Your task to perform on an android device: open chrome and create a bookmark for the current page Image 0: 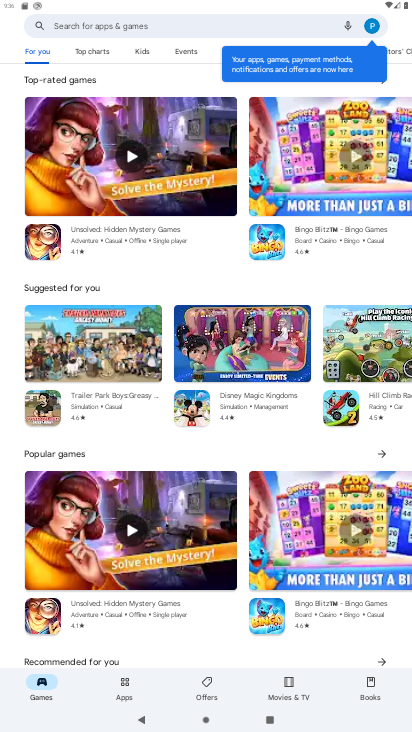
Step 0: press home button
Your task to perform on an android device: open chrome and create a bookmark for the current page Image 1: 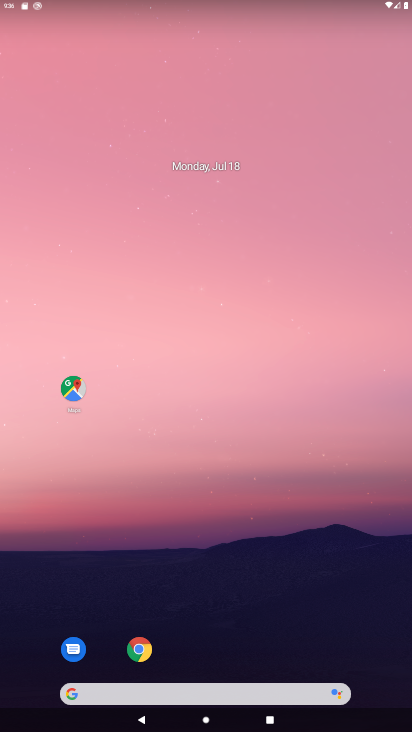
Step 1: click (130, 649)
Your task to perform on an android device: open chrome and create a bookmark for the current page Image 2: 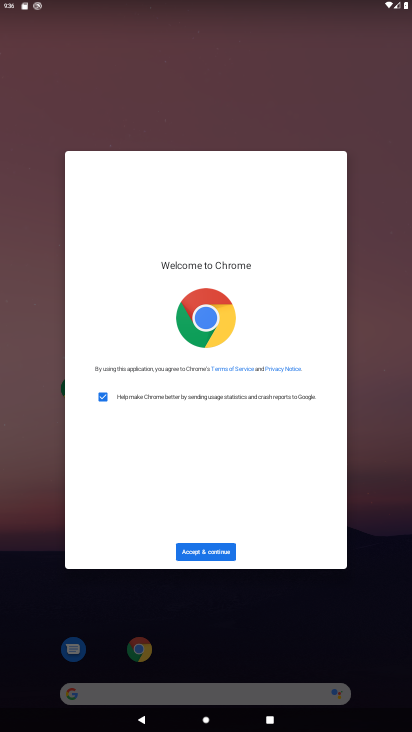
Step 2: click (188, 549)
Your task to perform on an android device: open chrome and create a bookmark for the current page Image 3: 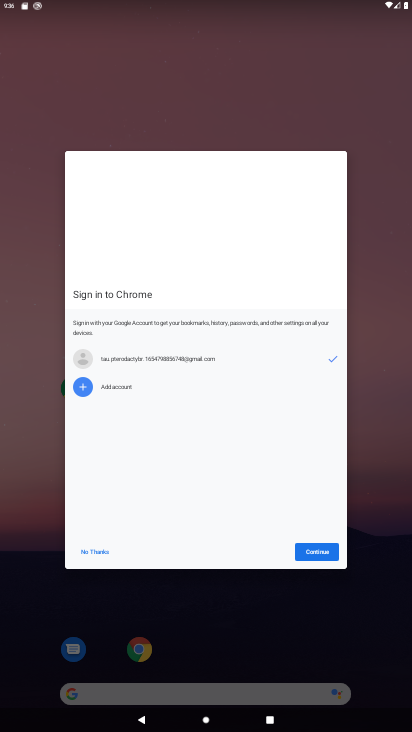
Step 3: click (310, 543)
Your task to perform on an android device: open chrome and create a bookmark for the current page Image 4: 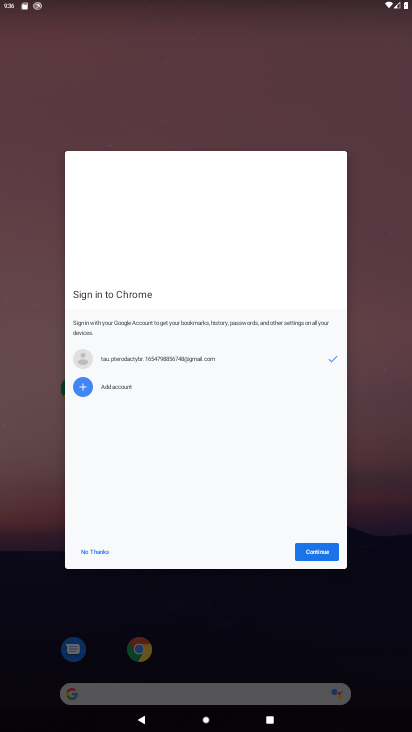
Step 4: click (310, 543)
Your task to perform on an android device: open chrome and create a bookmark for the current page Image 5: 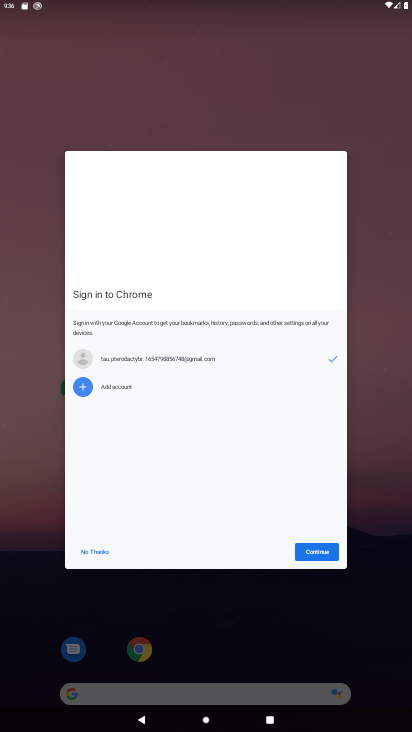
Step 5: click (310, 543)
Your task to perform on an android device: open chrome and create a bookmark for the current page Image 6: 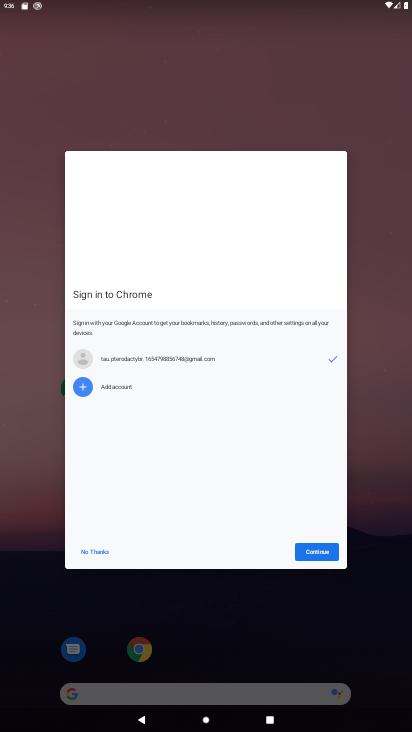
Step 6: click (310, 543)
Your task to perform on an android device: open chrome and create a bookmark for the current page Image 7: 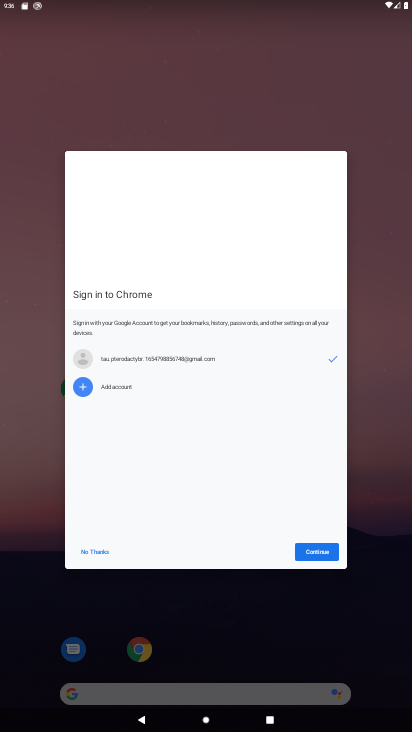
Step 7: click (310, 543)
Your task to perform on an android device: open chrome and create a bookmark for the current page Image 8: 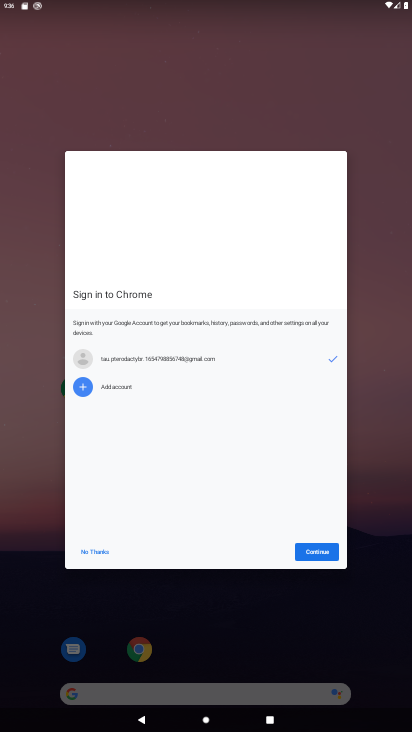
Step 8: click (310, 543)
Your task to perform on an android device: open chrome and create a bookmark for the current page Image 9: 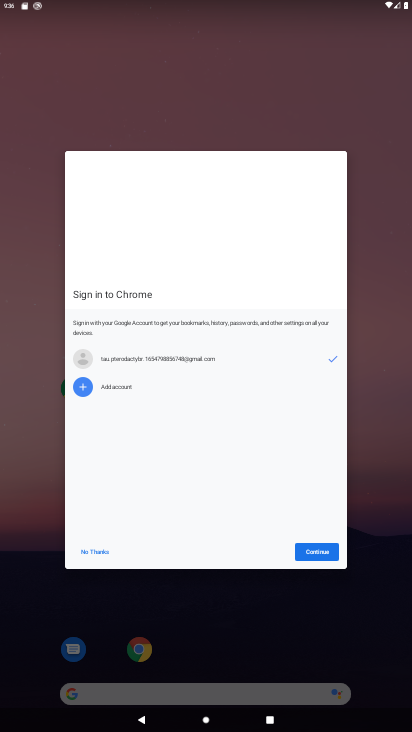
Step 9: click (310, 543)
Your task to perform on an android device: open chrome and create a bookmark for the current page Image 10: 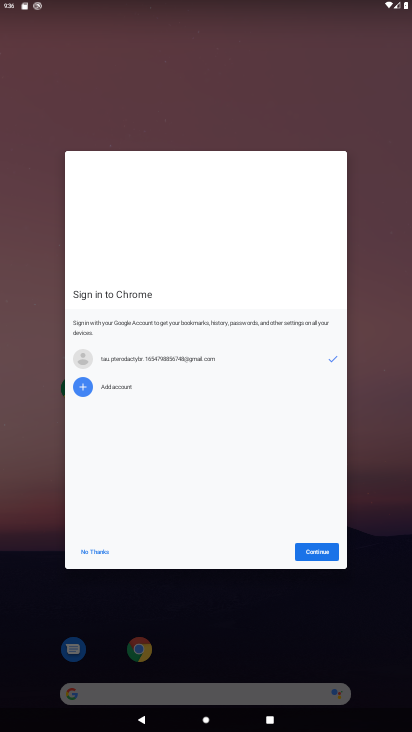
Step 10: click (310, 543)
Your task to perform on an android device: open chrome and create a bookmark for the current page Image 11: 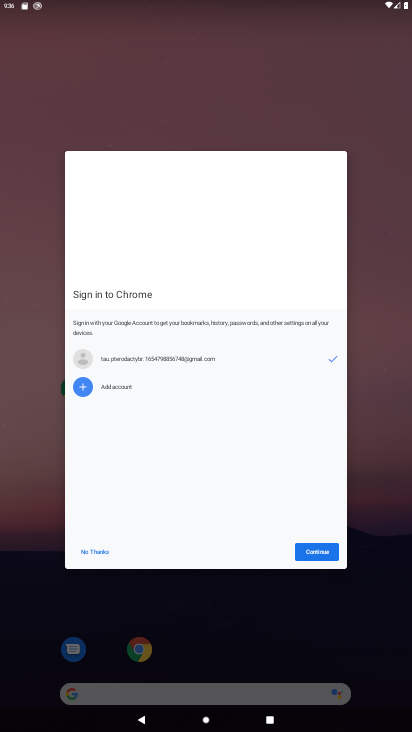
Step 11: click (310, 543)
Your task to perform on an android device: open chrome and create a bookmark for the current page Image 12: 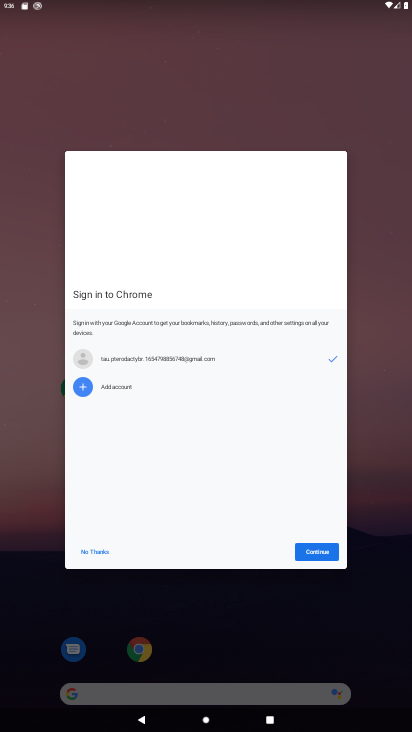
Step 12: click (310, 543)
Your task to perform on an android device: open chrome and create a bookmark for the current page Image 13: 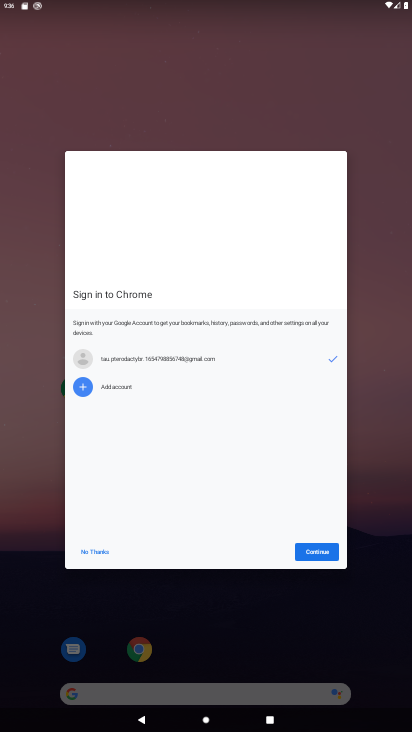
Step 13: click (310, 543)
Your task to perform on an android device: open chrome and create a bookmark for the current page Image 14: 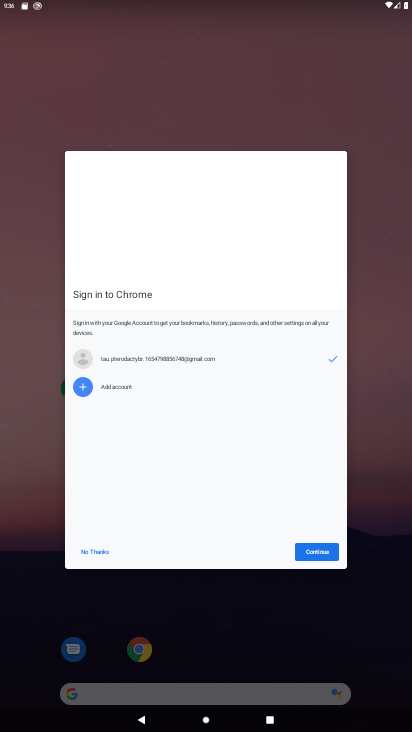
Step 14: click (310, 543)
Your task to perform on an android device: open chrome and create a bookmark for the current page Image 15: 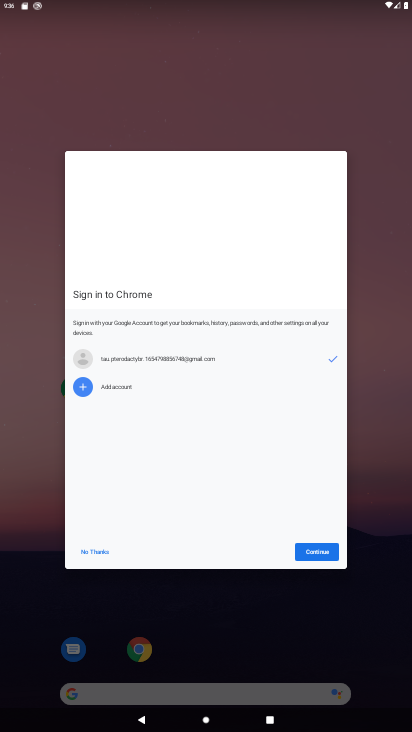
Step 15: click (310, 543)
Your task to perform on an android device: open chrome and create a bookmark for the current page Image 16: 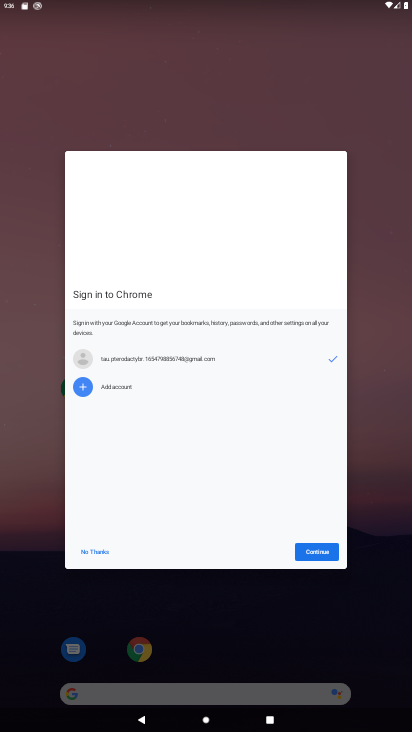
Step 16: click (310, 543)
Your task to perform on an android device: open chrome and create a bookmark for the current page Image 17: 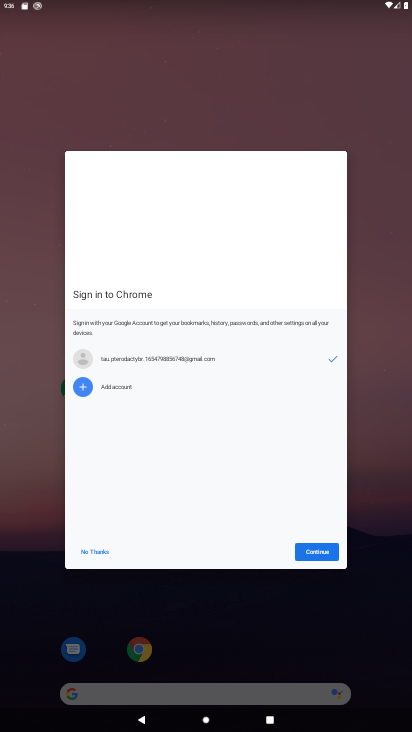
Step 17: click (310, 543)
Your task to perform on an android device: open chrome and create a bookmark for the current page Image 18: 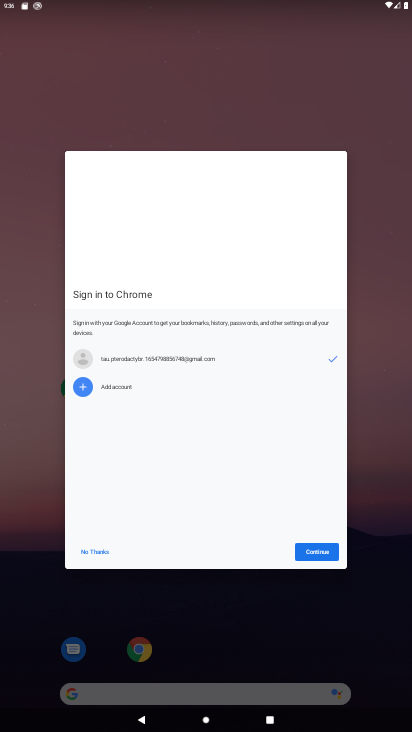
Step 18: click (310, 543)
Your task to perform on an android device: open chrome and create a bookmark for the current page Image 19: 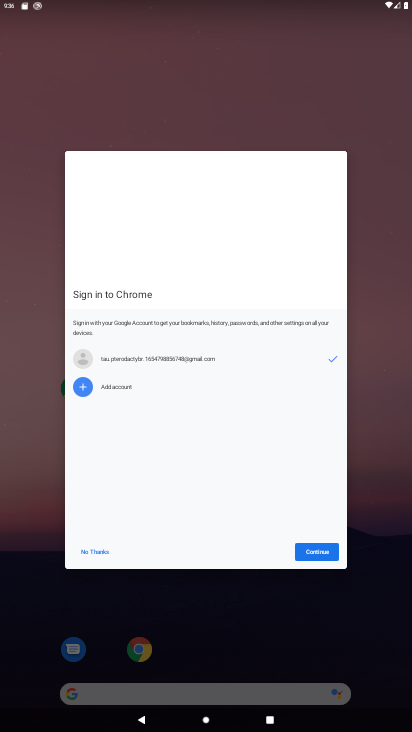
Step 19: click (310, 543)
Your task to perform on an android device: open chrome and create a bookmark for the current page Image 20: 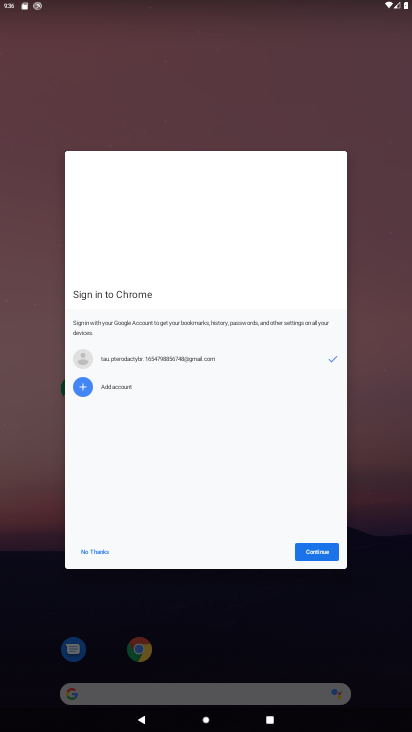
Step 20: click (313, 551)
Your task to perform on an android device: open chrome and create a bookmark for the current page Image 21: 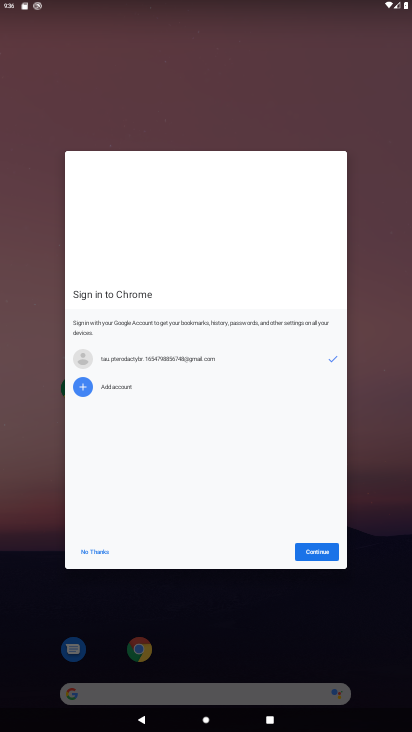
Step 21: click (313, 551)
Your task to perform on an android device: open chrome and create a bookmark for the current page Image 22: 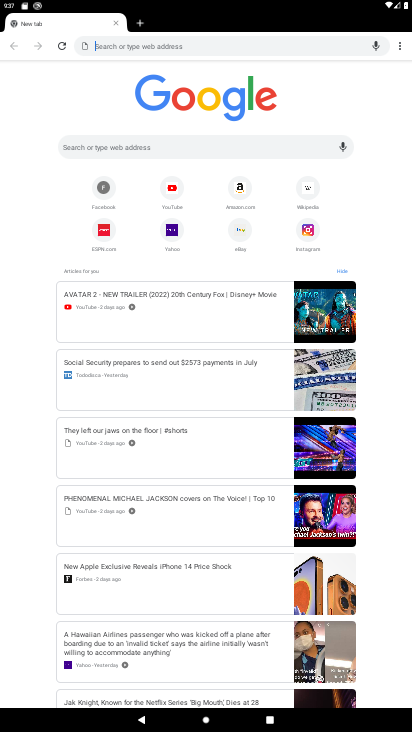
Step 22: drag from (401, 51) to (171, 114)
Your task to perform on an android device: open chrome and create a bookmark for the current page Image 23: 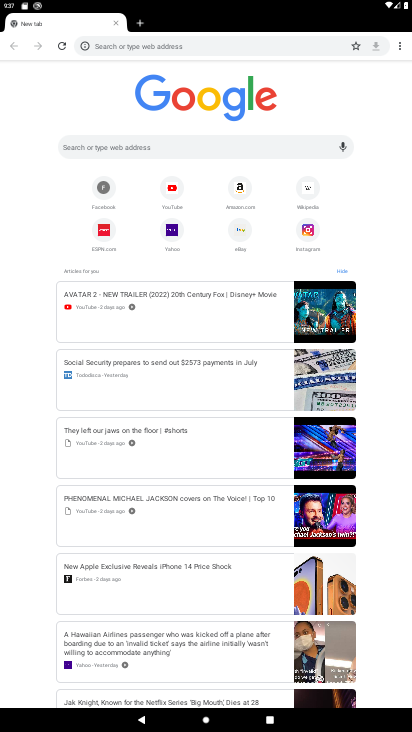
Step 23: click (360, 51)
Your task to perform on an android device: open chrome and create a bookmark for the current page Image 24: 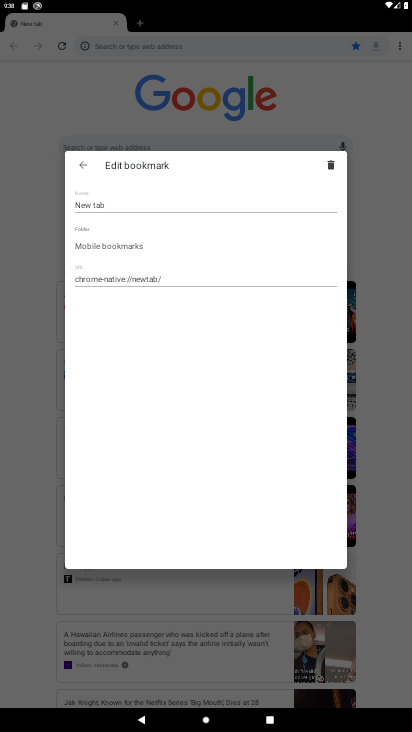
Step 24: click (86, 178)
Your task to perform on an android device: open chrome and create a bookmark for the current page Image 25: 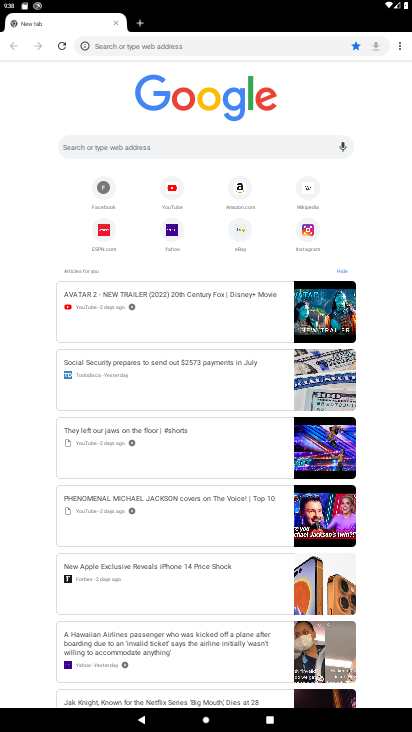
Step 25: task complete